Your task to perform on an android device: find which apps use the phone's location Image 0: 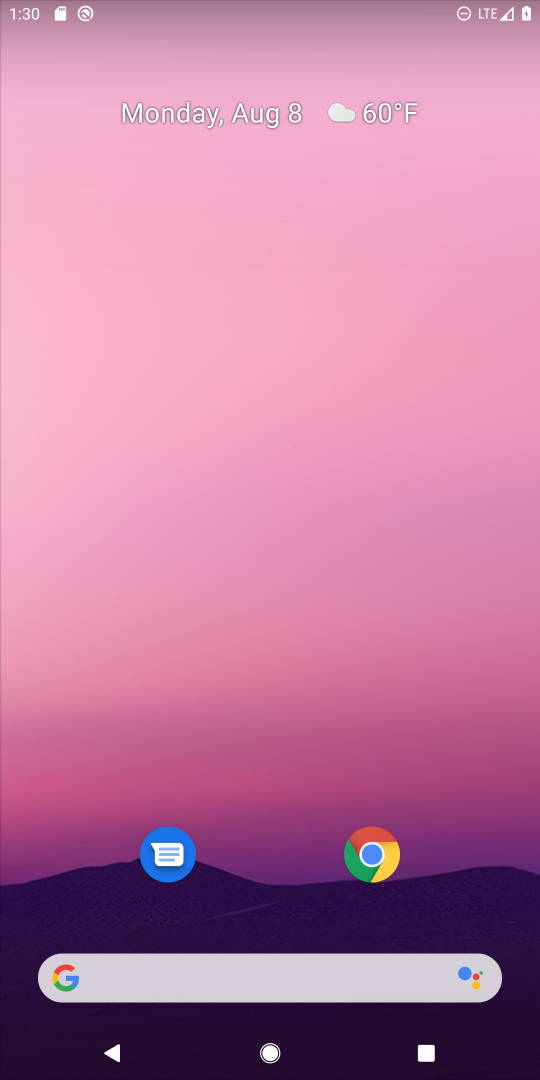
Step 0: press home button
Your task to perform on an android device: find which apps use the phone's location Image 1: 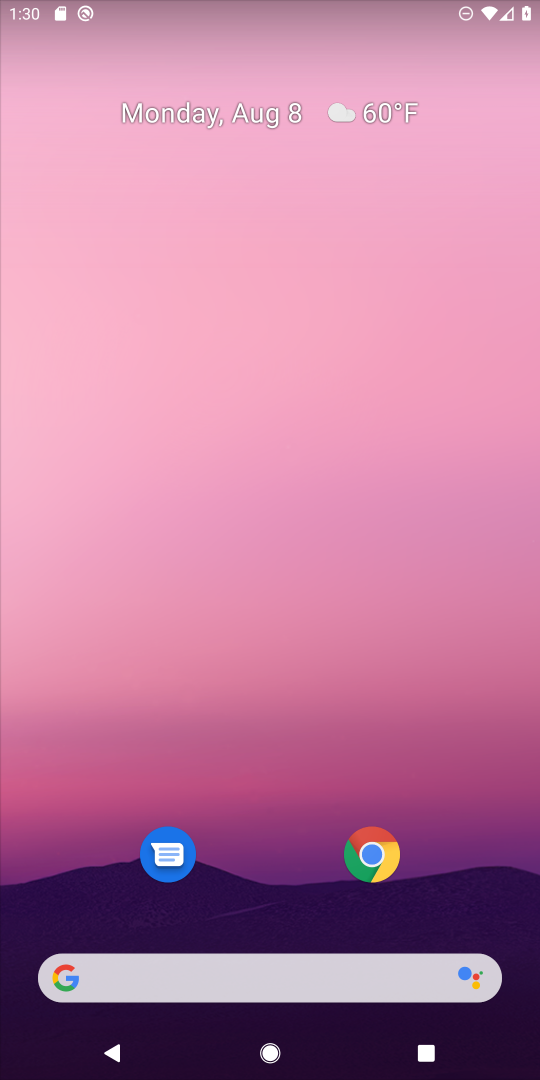
Step 1: press home button
Your task to perform on an android device: find which apps use the phone's location Image 2: 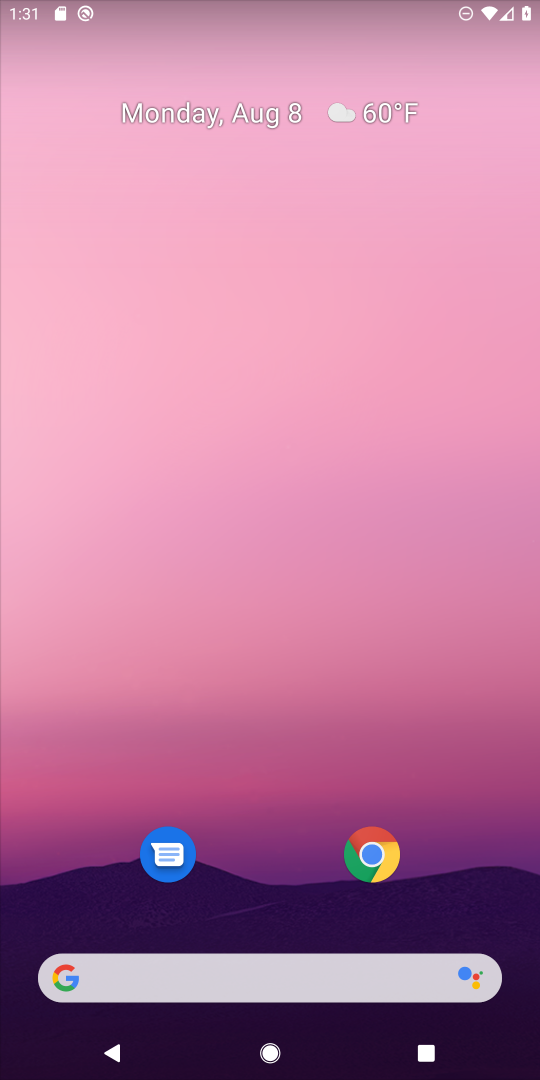
Step 2: drag from (286, 909) to (252, 128)
Your task to perform on an android device: find which apps use the phone's location Image 3: 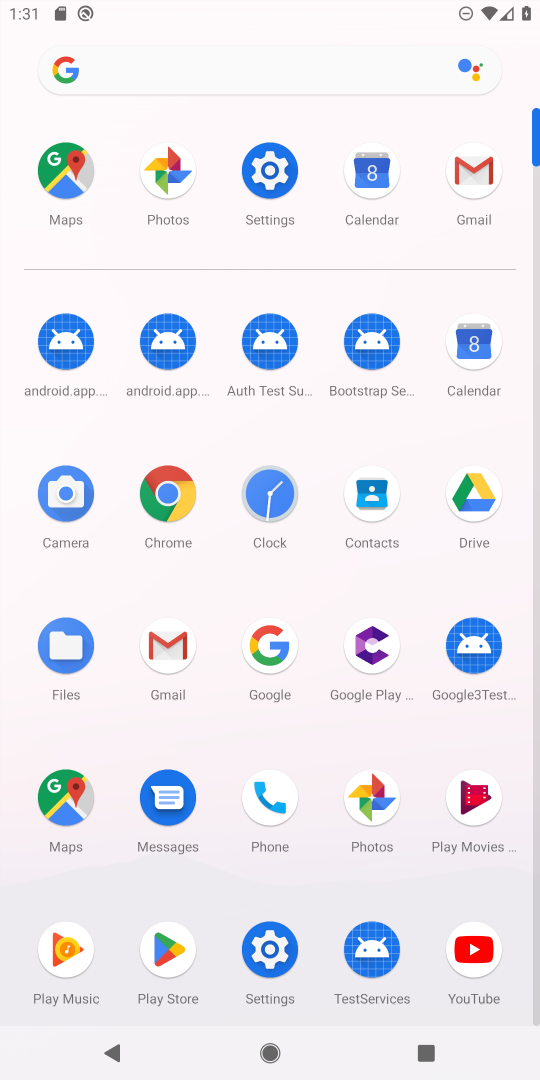
Step 3: click (278, 166)
Your task to perform on an android device: find which apps use the phone's location Image 4: 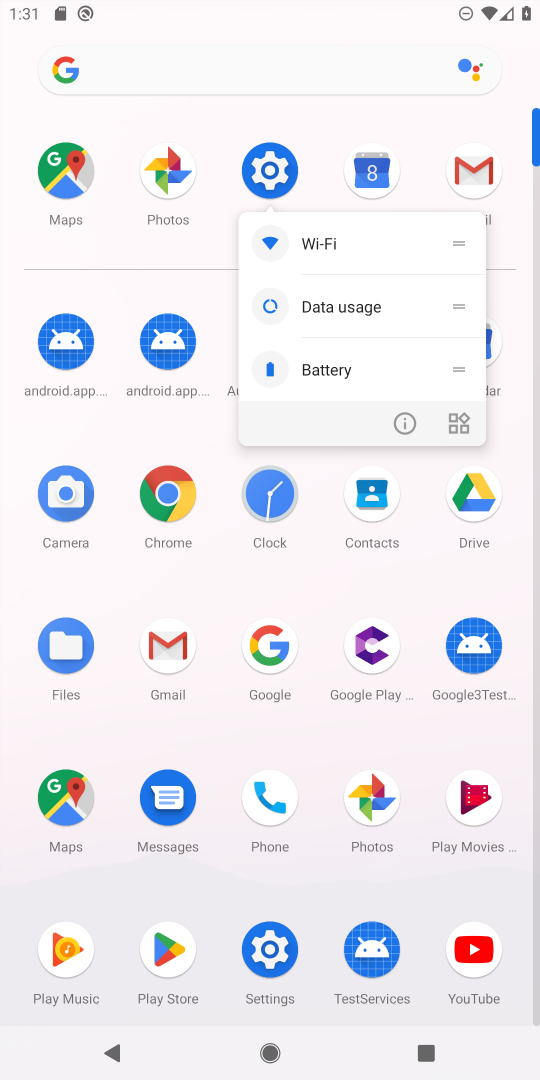
Step 4: click (260, 163)
Your task to perform on an android device: find which apps use the phone's location Image 5: 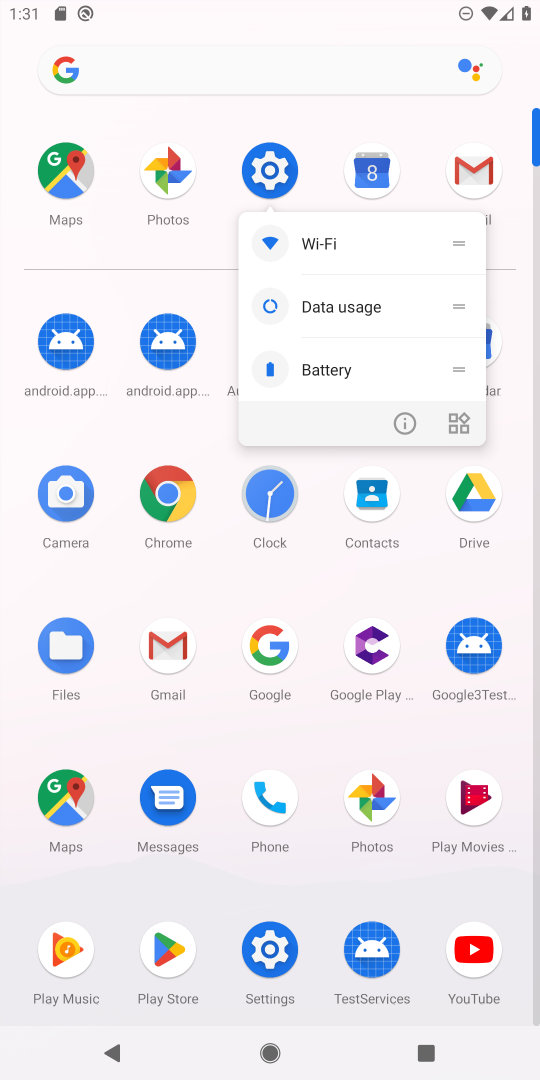
Step 5: click (260, 163)
Your task to perform on an android device: find which apps use the phone's location Image 6: 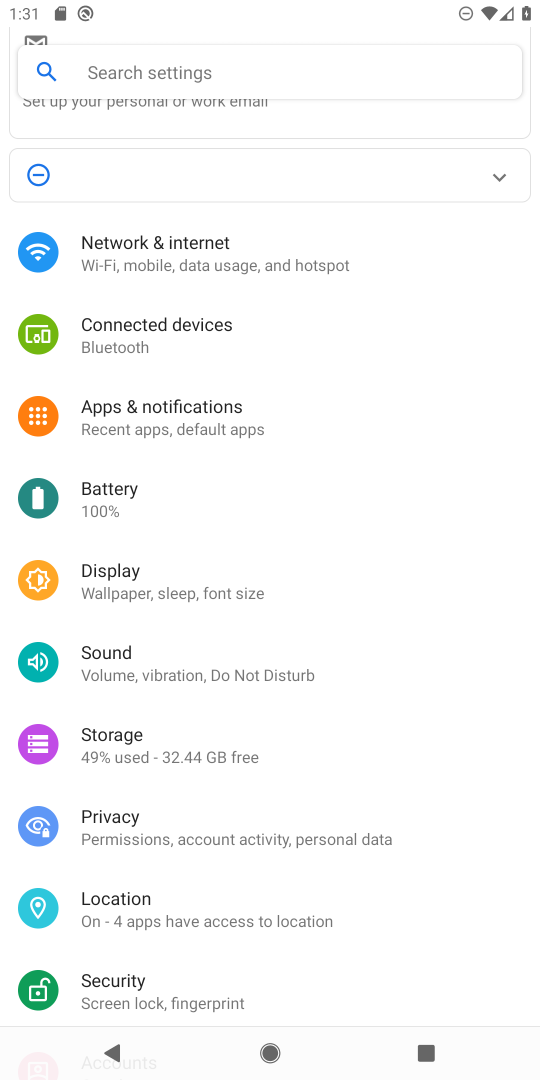
Step 6: click (152, 900)
Your task to perform on an android device: find which apps use the phone's location Image 7: 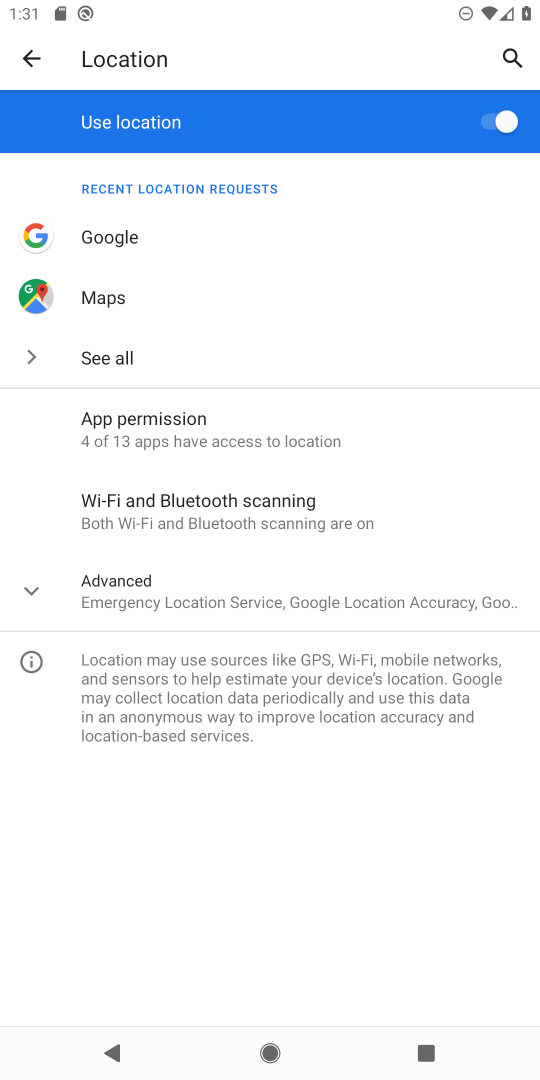
Step 7: click (82, 427)
Your task to perform on an android device: find which apps use the phone's location Image 8: 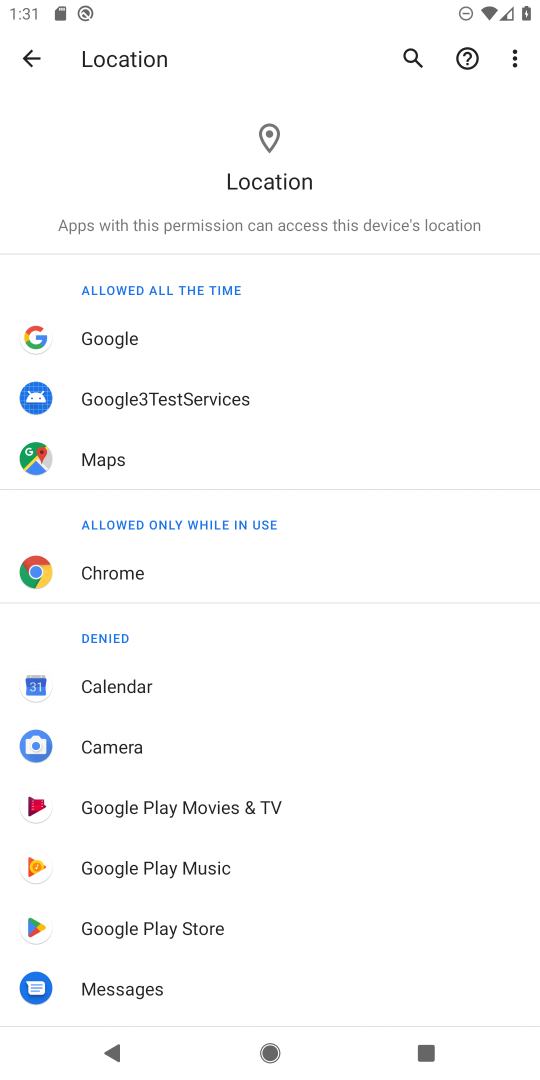
Step 8: task complete